Your task to perform on an android device: delete the emails in spam in the gmail app Image 0: 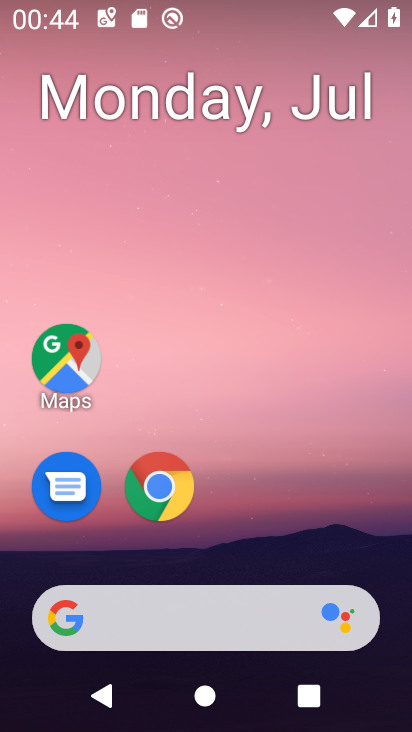
Step 0: drag from (349, 550) to (368, 132)
Your task to perform on an android device: delete the emails in spam in the gmail app Image 1: 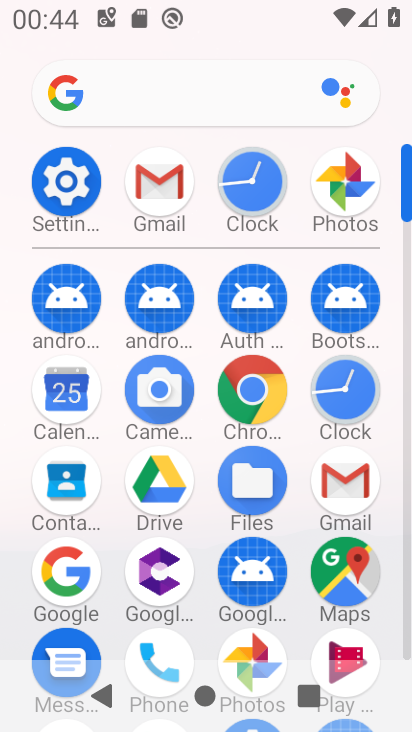
Step 1: click (344, 475)
Your task to perform on an android device: delete the emails in spam in the gmail app Image 2: 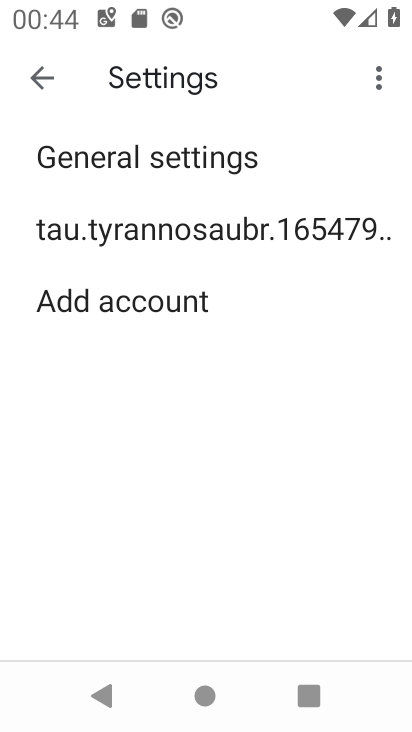
Step 2: press back button
Your task to perform on an android device: delete the emails in spam in the gmail app Image 3: 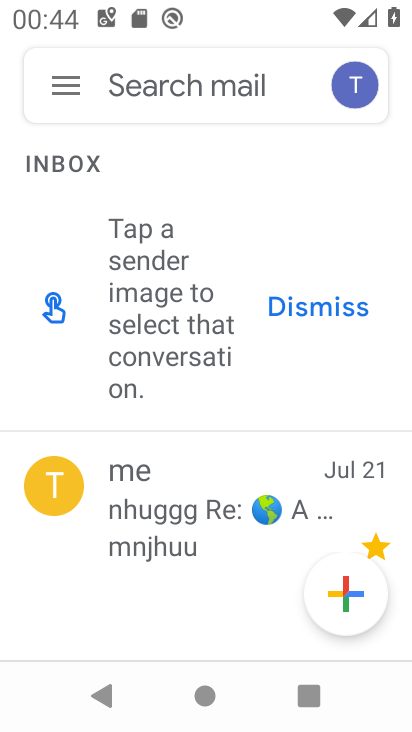
Step 3: click (64, 83)
Your task to perform on an android device: delete the emails in spam in the gmail app Image 4: 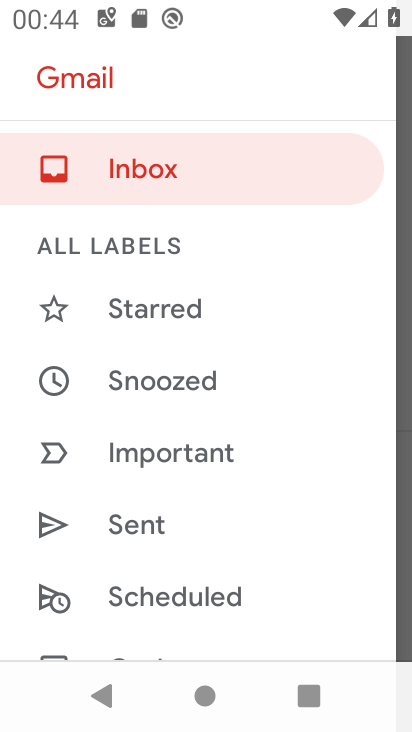
Step 4: drag from (288, 455) to (313, 380)
Your task to perform on an android device: delete the emails in spam in the gmail app Image 5: 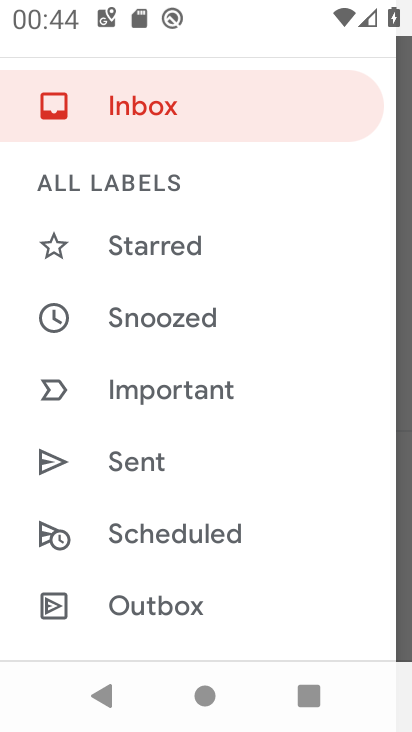
Step 5: drag from (309, 541) to (312, 444)
Your task to perform on an android device: delete the emails in spam in the gmail app Image 6: 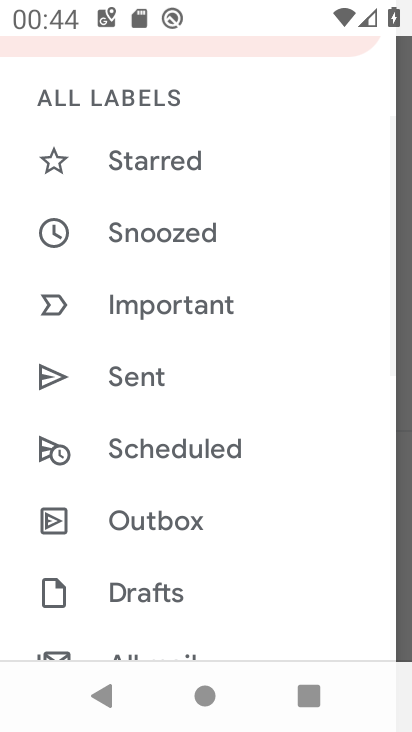
Step 6: drag from (291, 552) to (294, 423)
Your task to perform on an android device: delete the emails in spam in the gmail app Image 7: 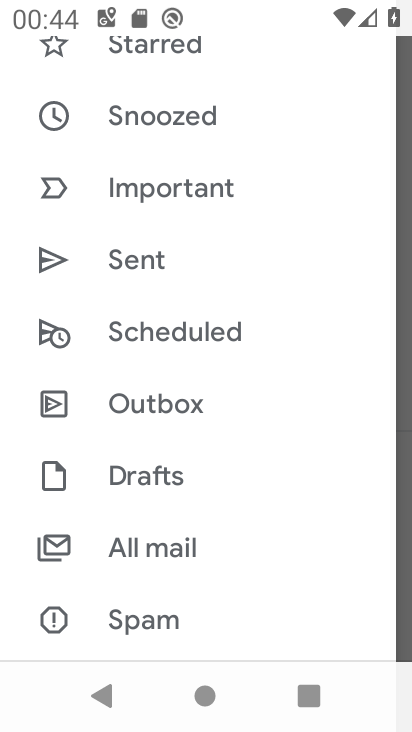
Step 7: drag from (277, 534) to (271, 403)
Your task to perform on an android device: delete the emails in spam in the gmail app Image 8: 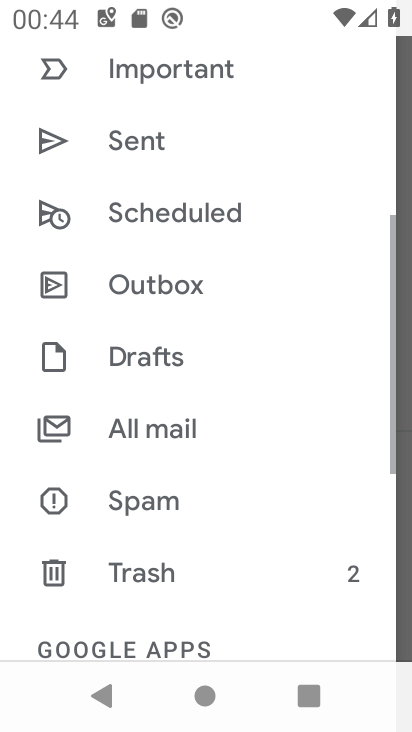
Step 8: drag from (260, 563) to (257, 417)
Your task to perform on an android device: delete the emails in spam in the gmail app Image 9: 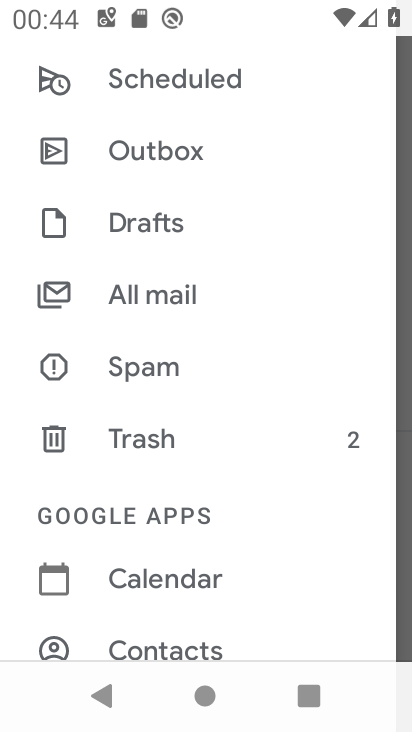
Step 9: click (229, 383)
Your task to perform on an android device: delete the emails in spam in the gmail app Image 10: 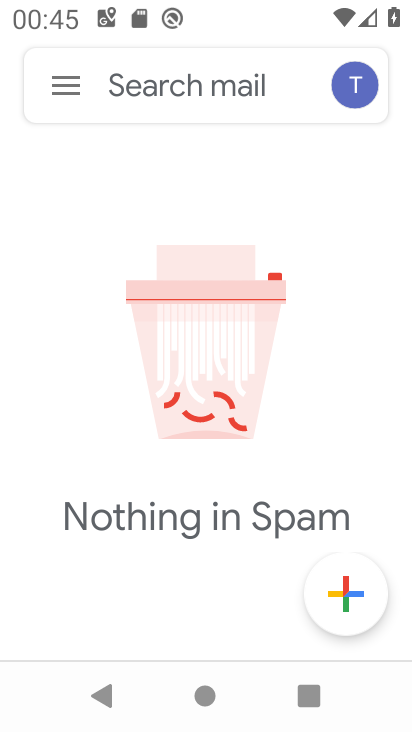
Step 10: task complete